Your task to perform on an android device: turn off location Image 0: 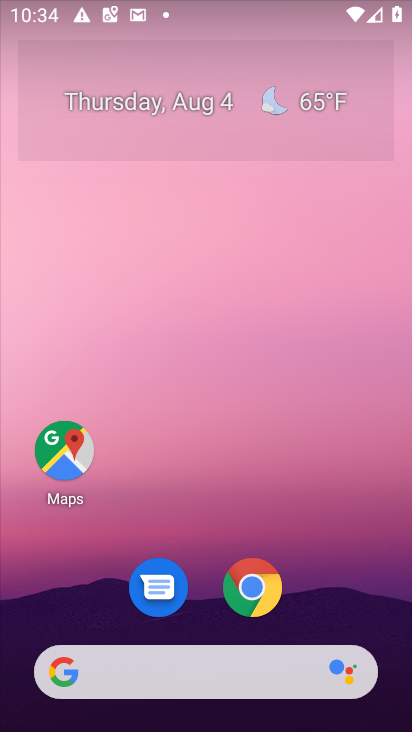
Step 0: drag from (294, 631) to (294, 118)
Your task to perform on an android device: turn off location Image 1: 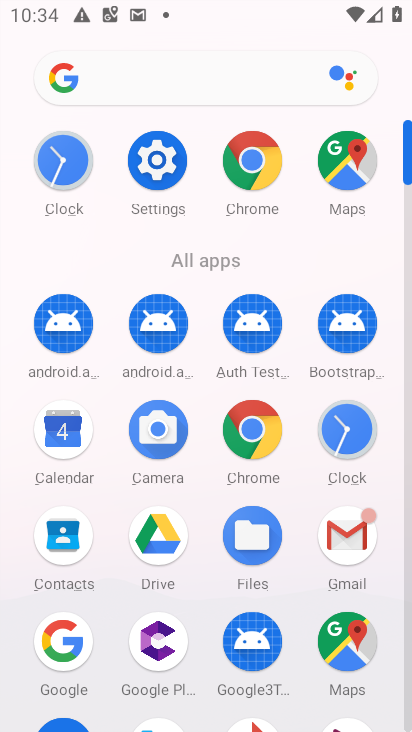
Step 1: click (178, 152)
Your task to perform on an android device: turn off location Image 2: 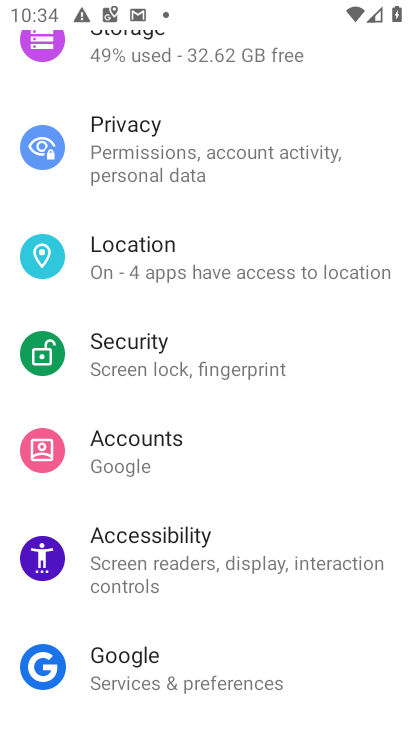
Step 2: click (158, 269)
Your task to perform on an android device: turn off location Image 3: 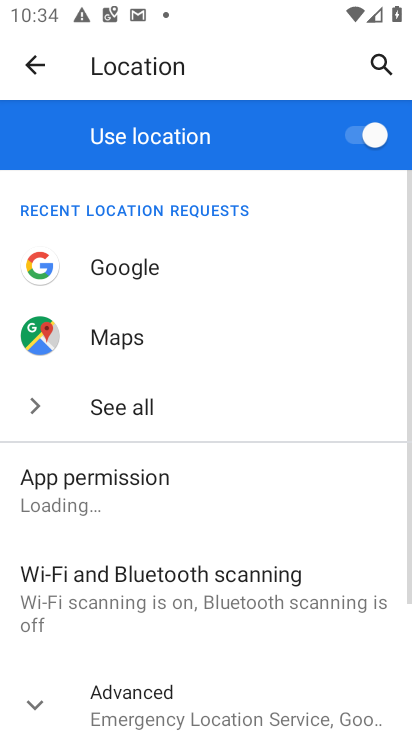
Step 3: click (345, 118)
Your task to perform on an android device: turn off location Image 4: 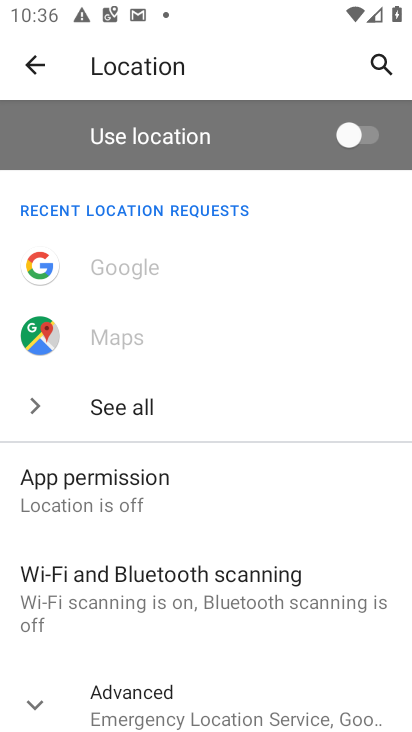
Step 4: task complete